Your task to perform on an android device: Open calendar and show me the first week of next month Image 0: 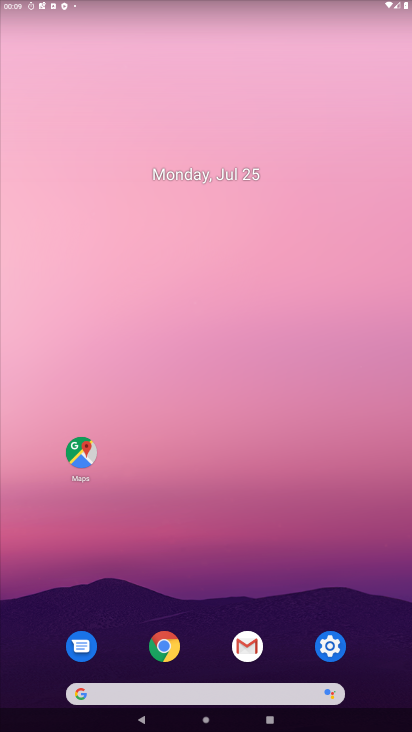
Step 0: drag from (263, 697) to (246, 62)
Your task to perform on an android device: Open calendar and show me the first week of next month Image 1: 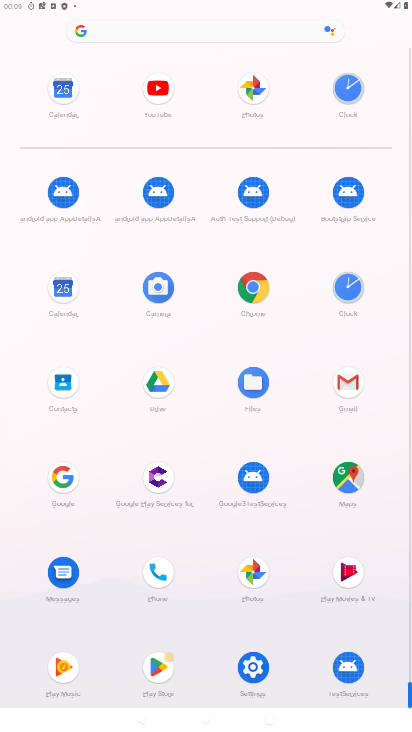
Step 1: click (65, 289)
Your task to perform on an android device: Open calendar and show me the first week of next month Image 2: 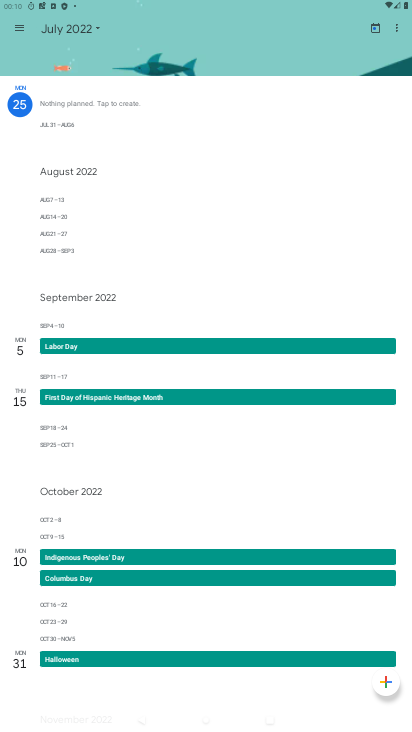
Step 2: click (25, 32)
Your task to perform on an android device: Open calendar and show me the first week of next month Image 3: 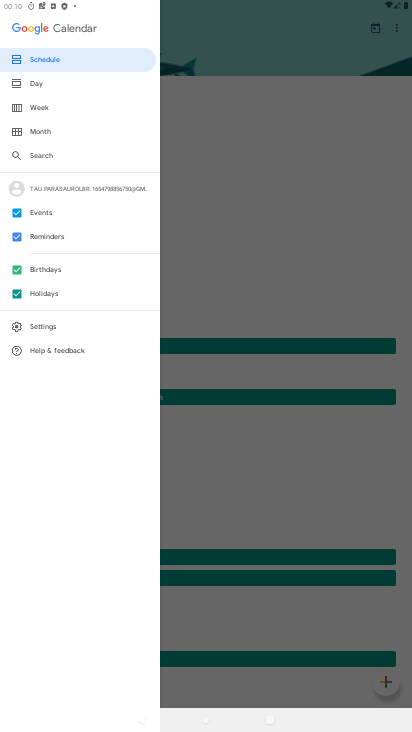
Step 3: click (52, 131)
Your task to perform on an android device: Open calendar and show me the first week of next month Image 4: 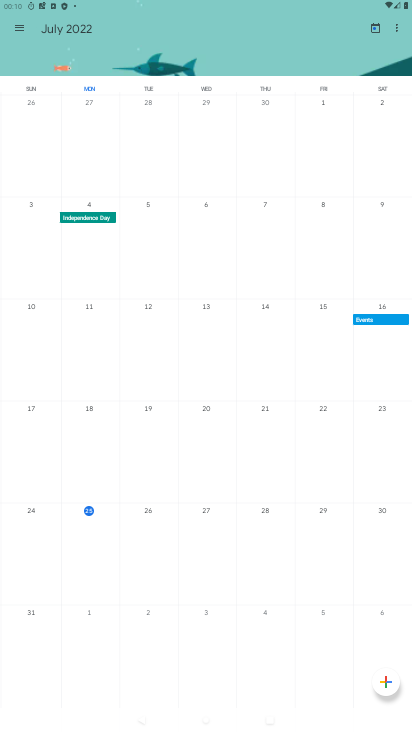
Step 4: drag from (367, 358) to (0, 422)
Your task to perform on an android device: Open calendar and show me the first week of next month Image 5: 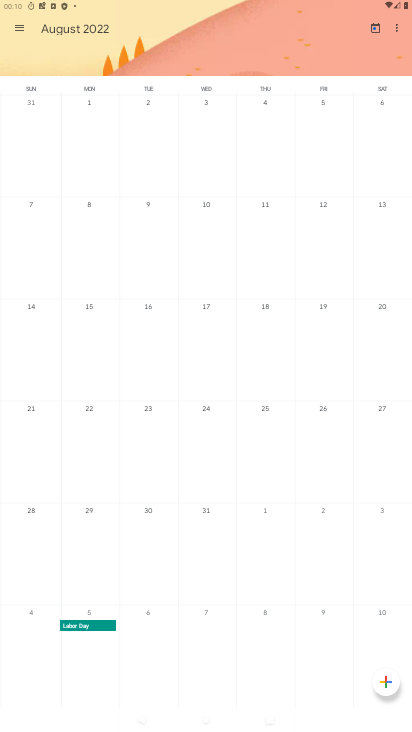
Step 5: click (90, 126)
Your task to perform on an android device: Open calendar and show me the first week of next month Image 6: 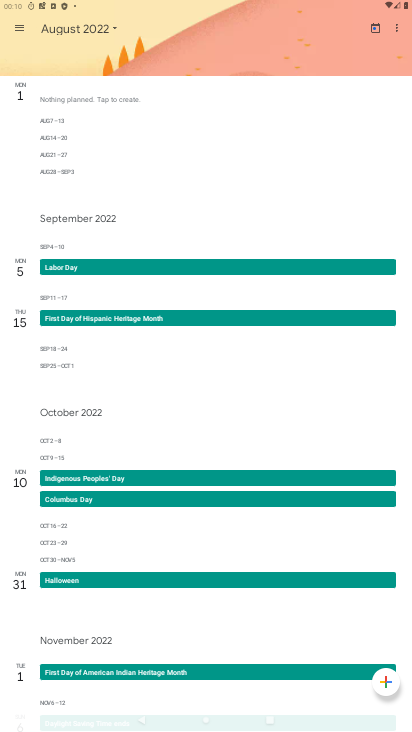
Step 6: task complete